Your task to perform on an android device: toggle javascript in the chrome app Image 0: 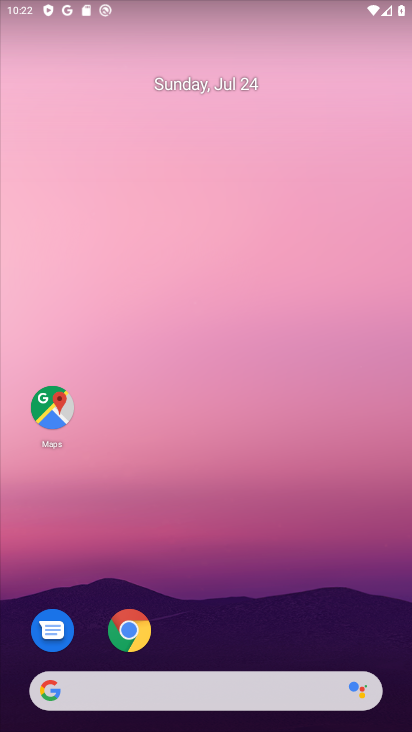
Step 0: press home button
Your task to perform on an android device: toggle javascript in the chrome app Image 1: 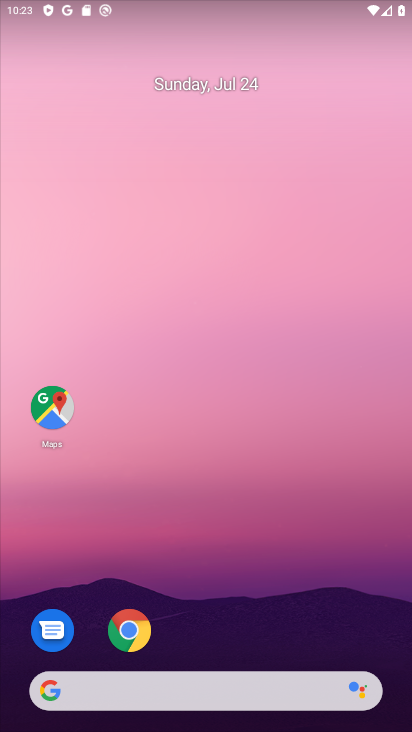
Step 1: click (133, 611)
Your task to perform on an android device: toggle javascript in the chrome app Image 2: 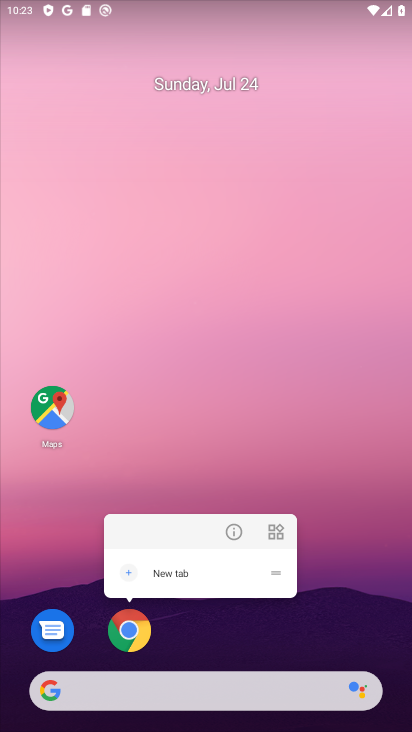
Step 2: click (132, 628)
Your task to perform on an android device: toggle javascript in the chrome app Image 3: 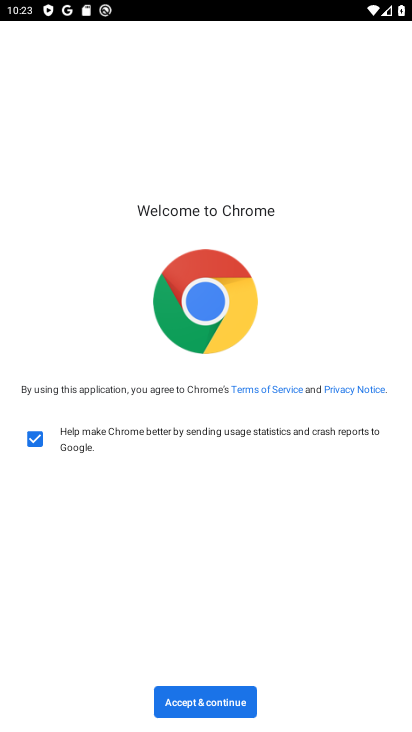
Step 3: click (194, 696)
Your task to perform on an android device: toggle javascript in the chrome app Image 4: 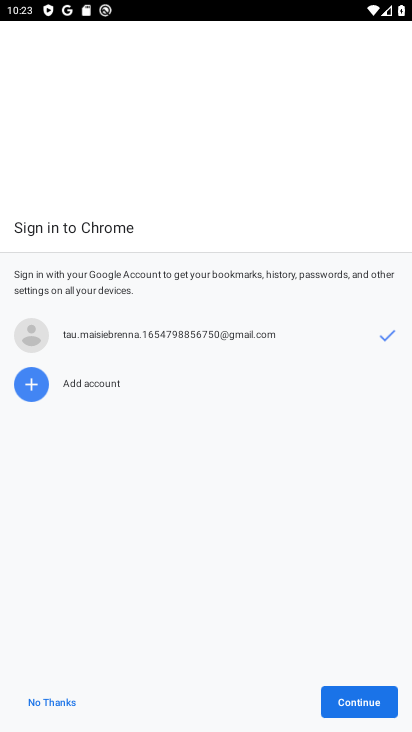
Step 4: click (368, 702)
Your task to perform on an android device: toggle javascript in the chrome app Image 5: 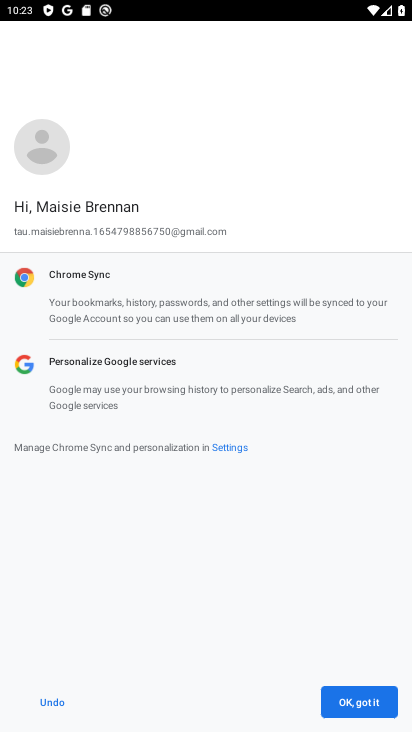
Step 5: click (368, 702)
Your task to perform on an android device: toggle javascript in the chrome app Image 6: 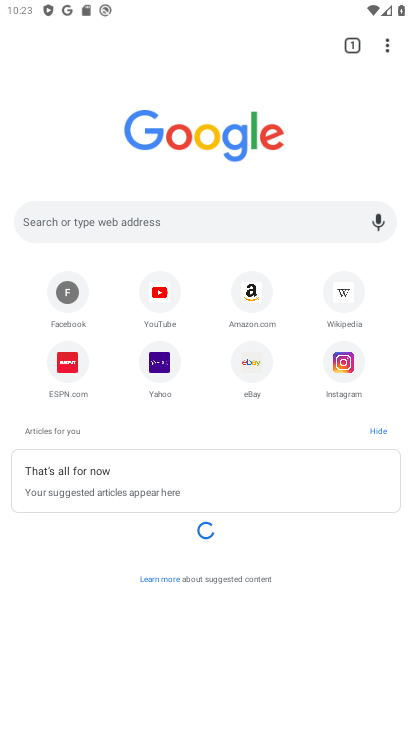
Step 6: drag from (384, 42) to (227, 383)
Your task to perform on an android device: toggle javascript in the chrome app Image 7: 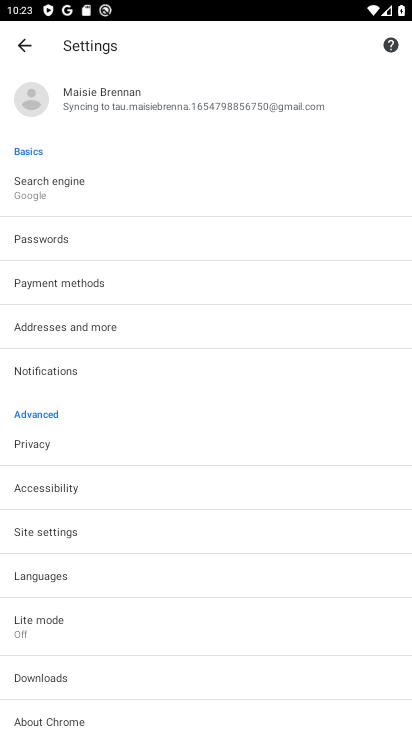
Step 7: click (33, 522)
Your task to perform on an android device: toggle javascript in the chrome app Image 8: 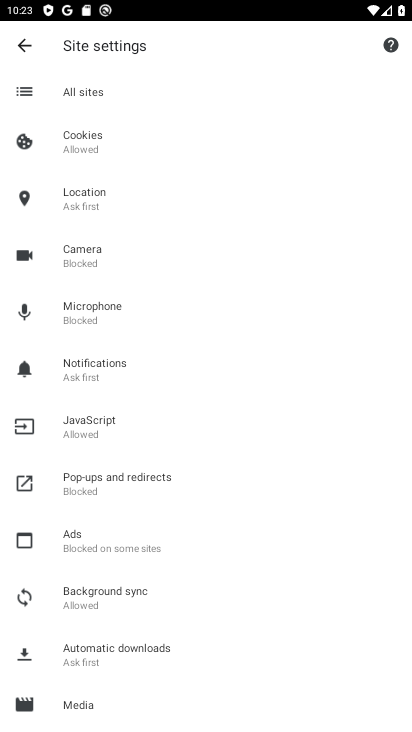
Step 8: click (76, 412)
Your task to perform on an android device: toggle javascript in the chrome app Image 9: 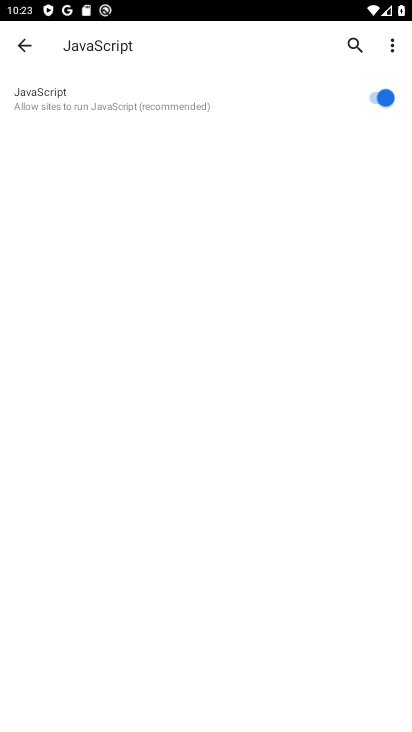
Step 9: click (382, 94)
Your task to perform on an android device: toggle javascript in the chrome app Image 10: 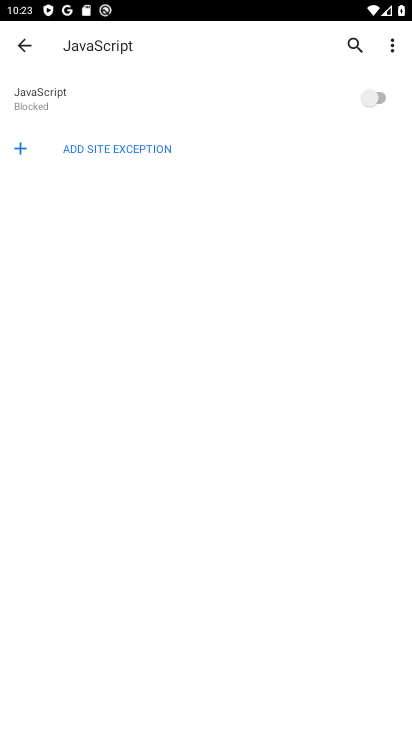
Step 10: task complete